Your task to perform on an android device: Open Chrome and go to settings Image 0: 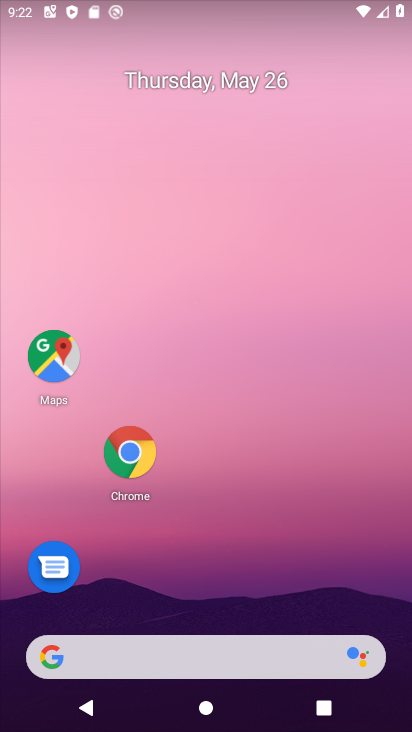
Step 0: press home button
Your task to perform on an android device: Open Chrome and go to settings Image 1: 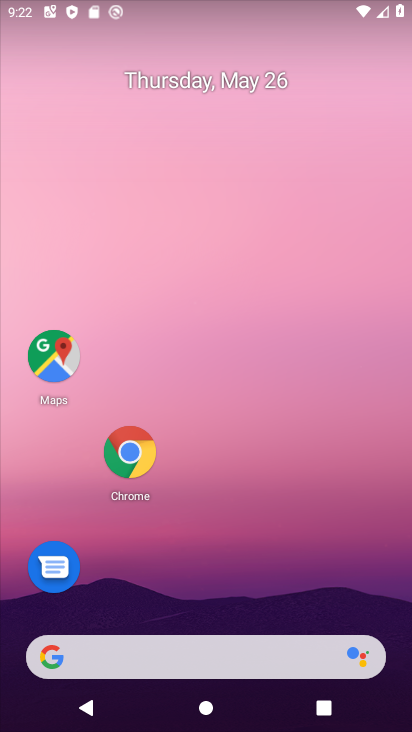
Step 1: click (133, 461)
Your task to perform on an android device: Open Chrome and go to settings Image 2: 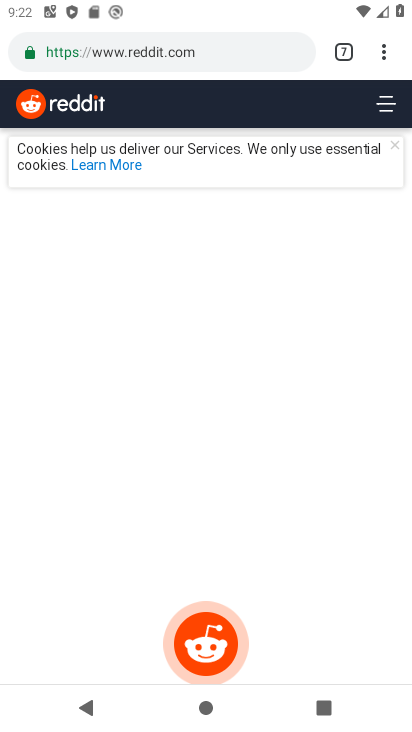
Step 2: task complete